Your task to perform on an android device: Open the stopwatch Image 0: 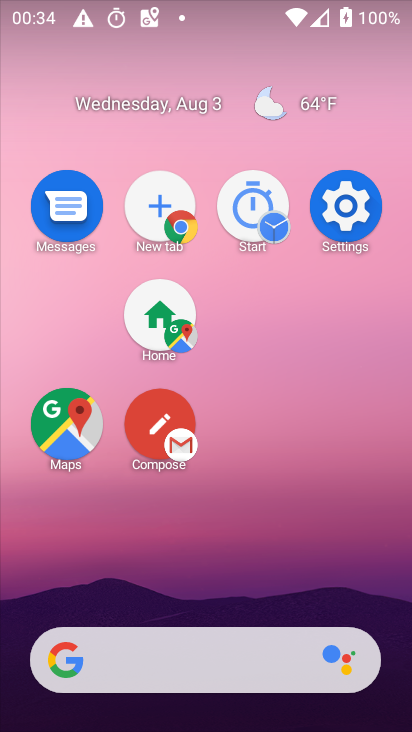
Step 0: drag from (229, 513) to (138, 211)
Your task to perform on an android device: Open the stopwatch Image 1: 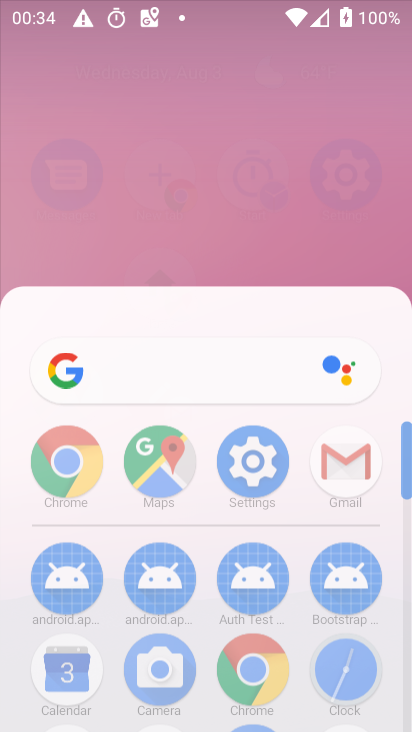
Step 1: drag from (213, 371) to (184, 247)
Your task to perform on an android device: Open the stopwatch Image 2: 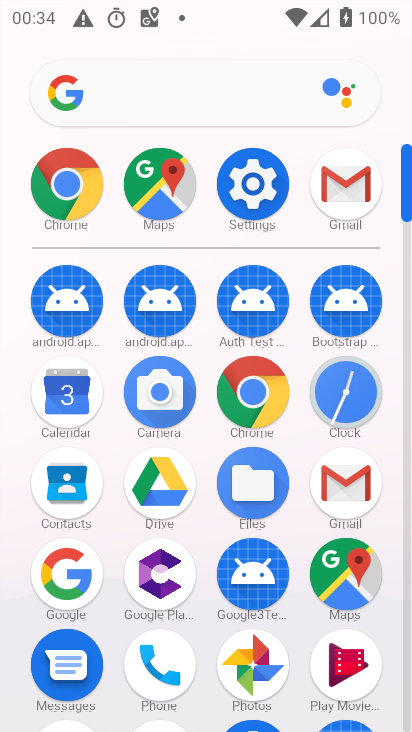
Step 2: click (354, 385)
Your task to perform on an android device: Open the stopwatch Image 3: 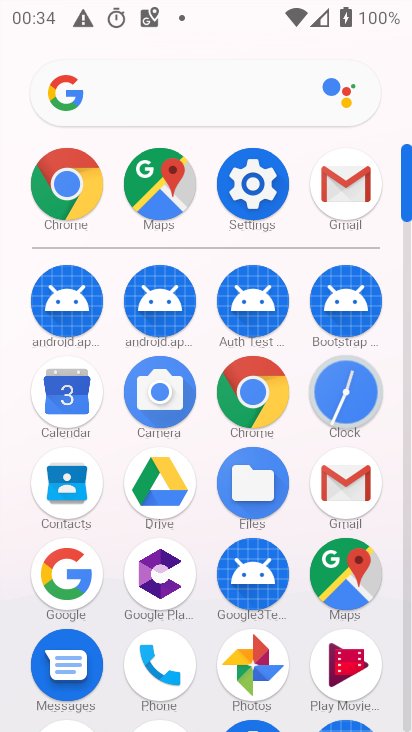
Step 3: click (355, 386)
Your task to perform on an android device: Open the stopwatch Image 4: 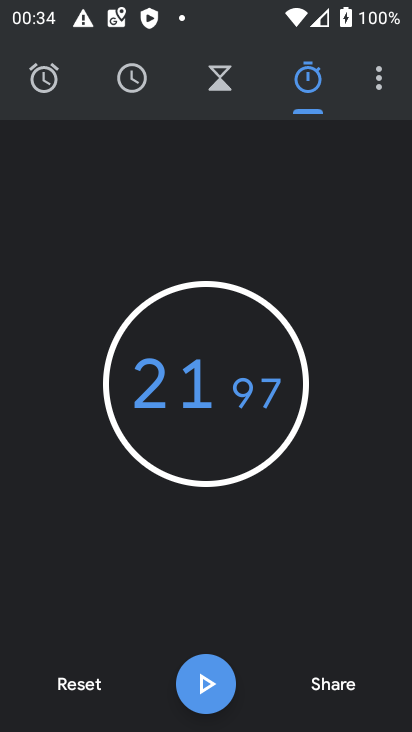
Step 4: click (293, 101)
Your task to perform on an android device: Open the stopwatch Image 5: 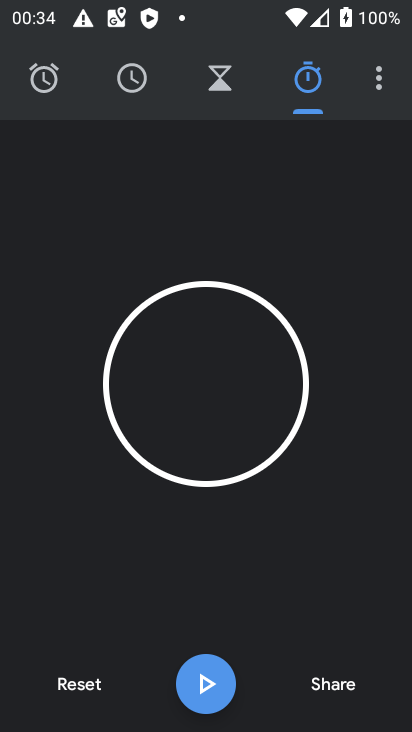
Step 5: task complete